Your task to perform on an android device: Do I have any events this weekend? Image 0: 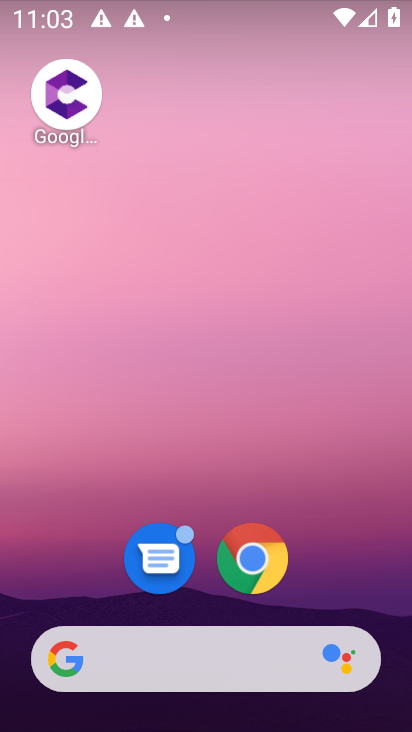
Step 0: drag from (350, 568) to (397, 88)
Your task to perform on an android device: Do I have any events this weekend? Image 1: 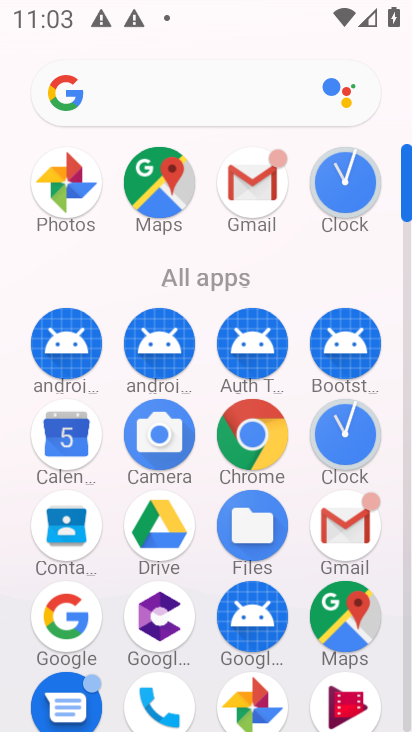
Step 1: click (70, 434)
Your task to perform on an android device: Do I have any events this weekend? Image 2: 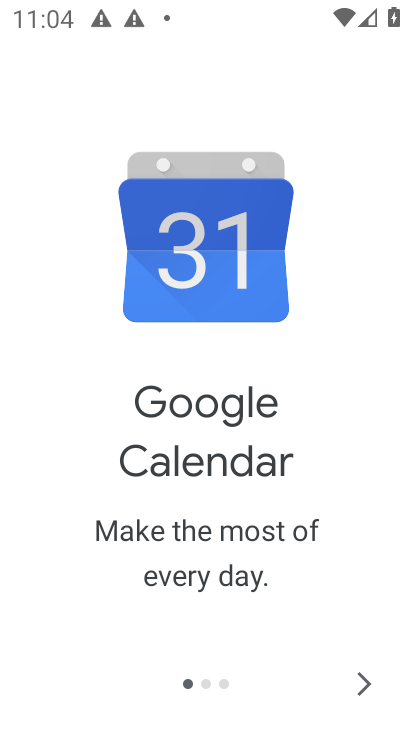
Step 2: click (356, 683)
Your task to perform on an android device: Do I have any events this weekend? Image 3: 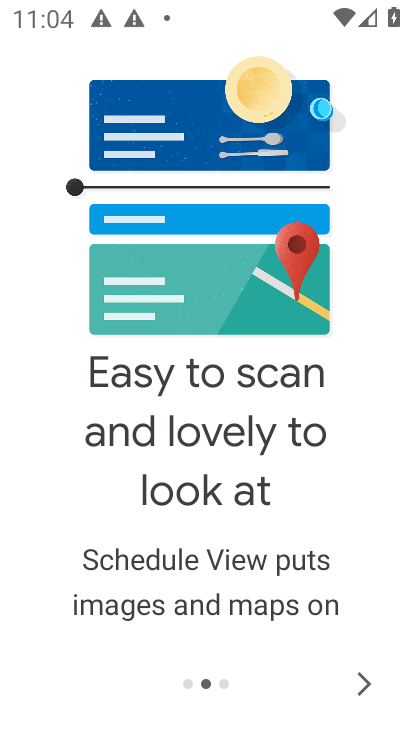
Step 3: click (362, 678)
Your task to perform on an android device: Do I have any events this weekend? Image 4: 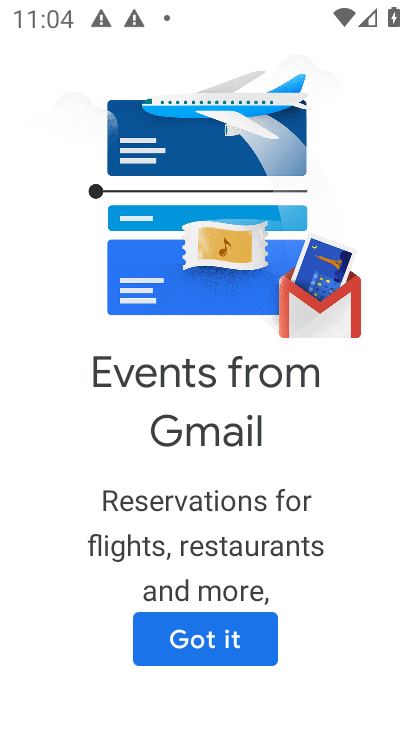
Step 4: click (216, 647)
Your task to perform on an android device: Do I have any events this weekend? Image 5: 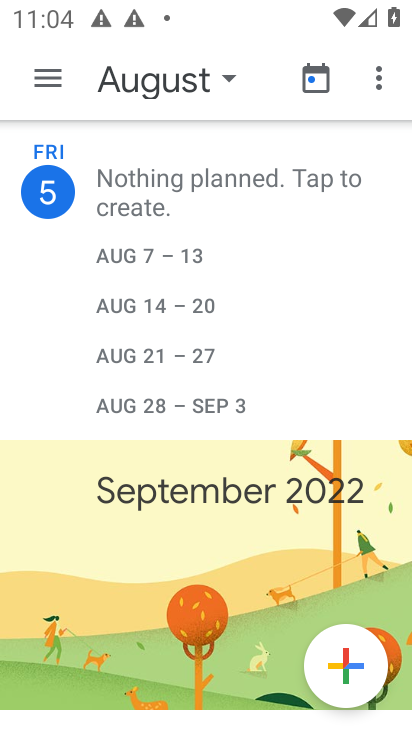
Step 5: task complete